Your task to perform on an android device: turn on data saver in the chrome app Image 0: 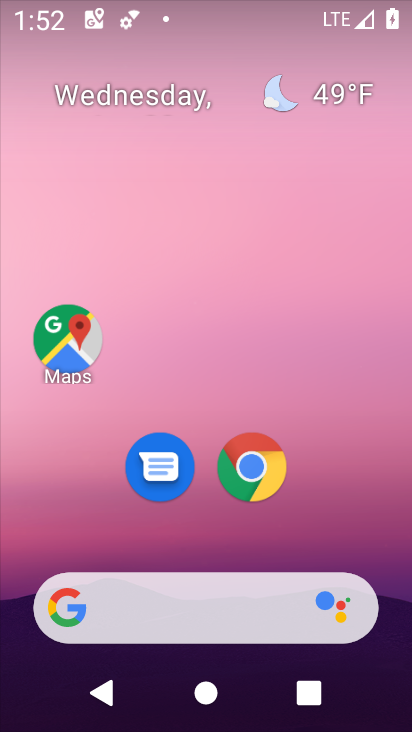
Step 0: click (249, 470)
Your task to perform on an android device: turn on data saver in the chrome app Image 1: 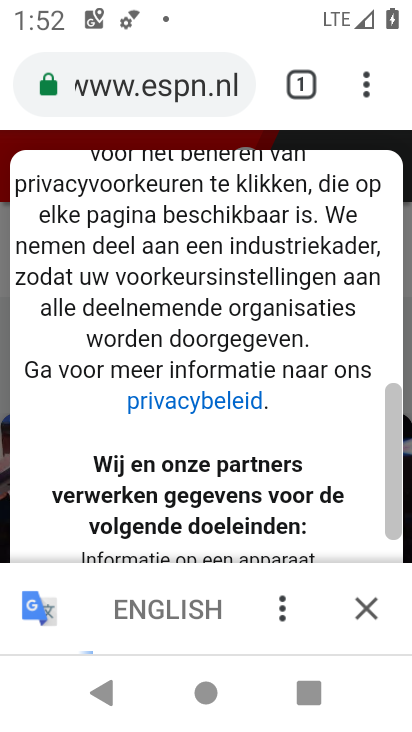
Step 1: click (364, 96)
Your task to perform on an android device: turn on data saver in the chrome app Image 2: 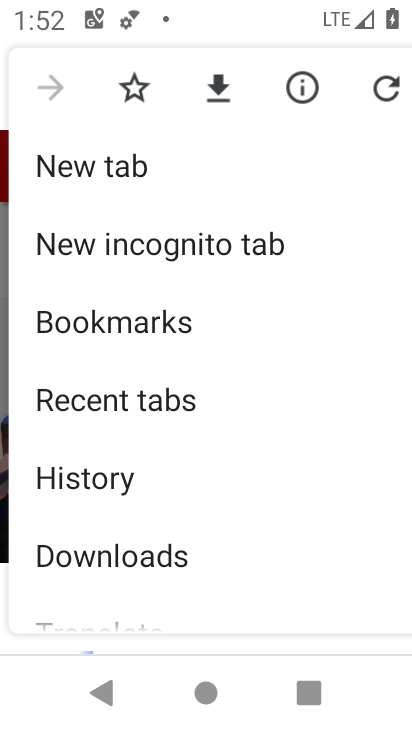
Step 2: drag from (204, 534) to (216, 192)
Your task to perform on an android device: turn on data saver in the chrome app Image 3: 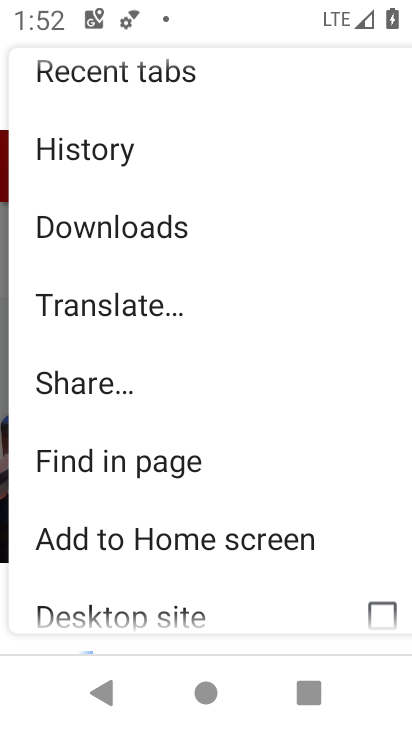
Step 3: drag from (251, 490) to (226, 130)
Your task to perform on an android device: turn on data saver in the chrome app Image 4: 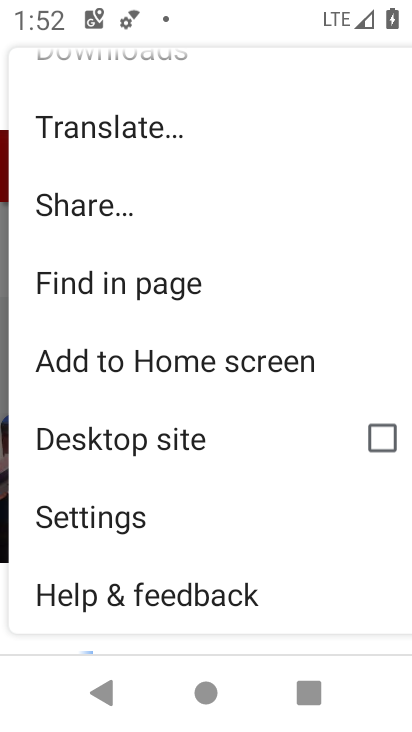
Step 4: click (137, 511)
Your task to perform on an android device: turn on data saver in the chrome app Image 5: 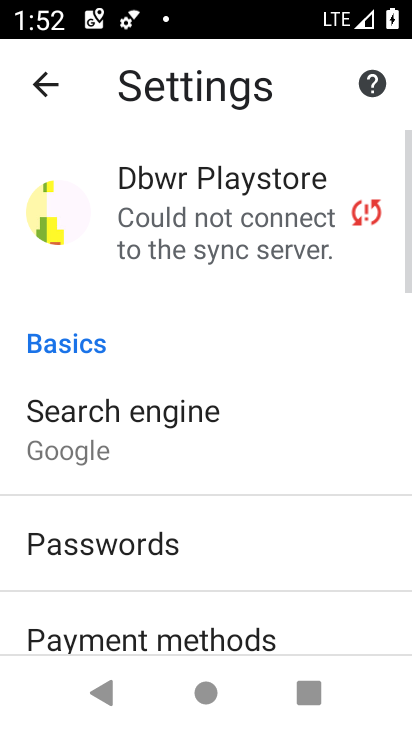
Step 5: drag from (276, 547) to (247, 255)
Your task to perform on an android device: turn on data saver in the chrome app Image 6: 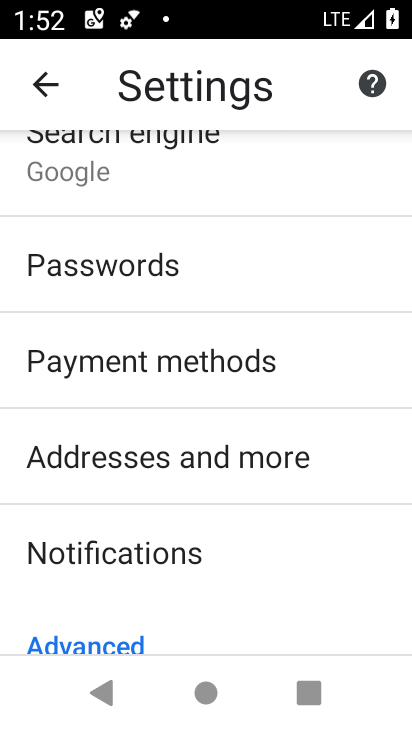
Step 6: drag from (271, 565) to (310, 268)
Your task to perform on an android device: turn on data saver in the chrome app Image 7: 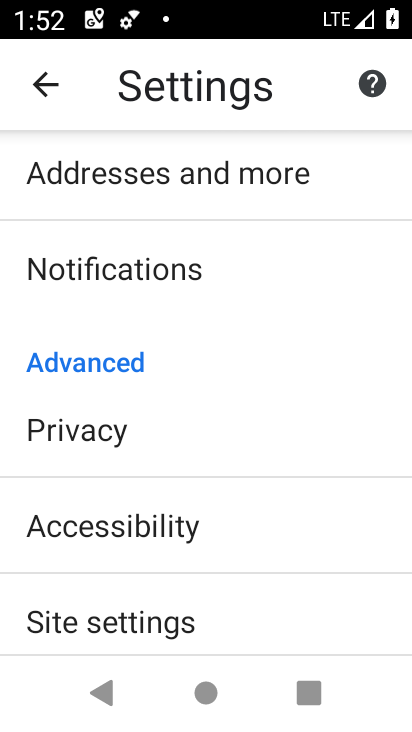
Step 7: drag from (258, 601) to (260, 209)
Your task to perform on an android device: turn on data saver in the chrome app Image 8: 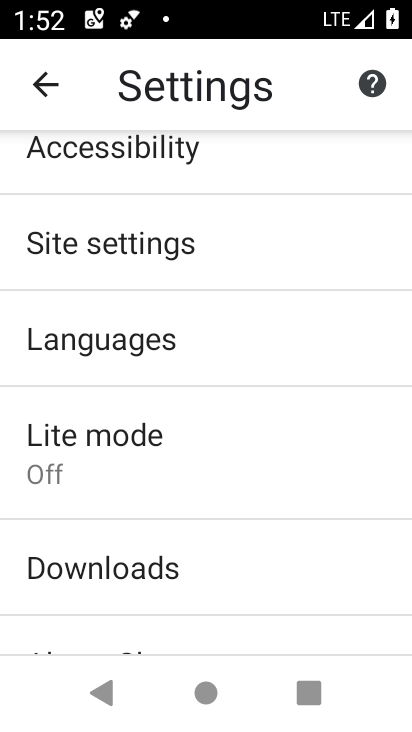
Step 8: click (76, 441)
Your task to perform on an android device: turn on data saver in the chrome app Image 9: 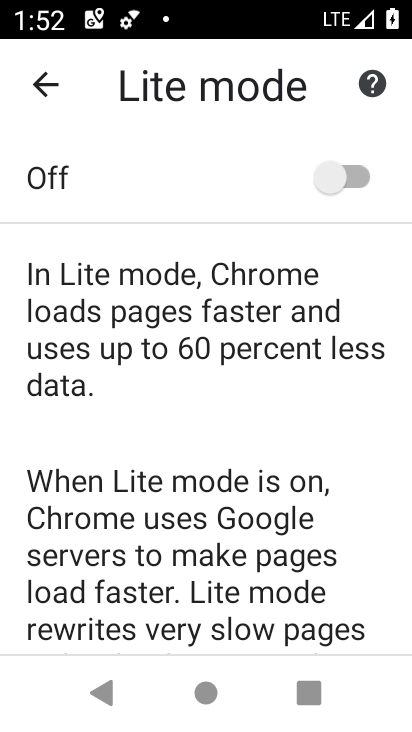
Step 9: click (360, 179)
Your task to perform on an android device: turn on data saver in the chrome app Image 10: 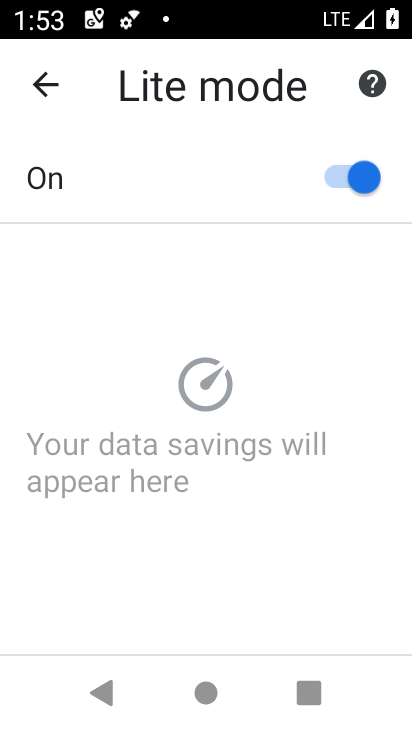
Step 10: task complete